Your task to perform on an android device: Check the weather Image 0: 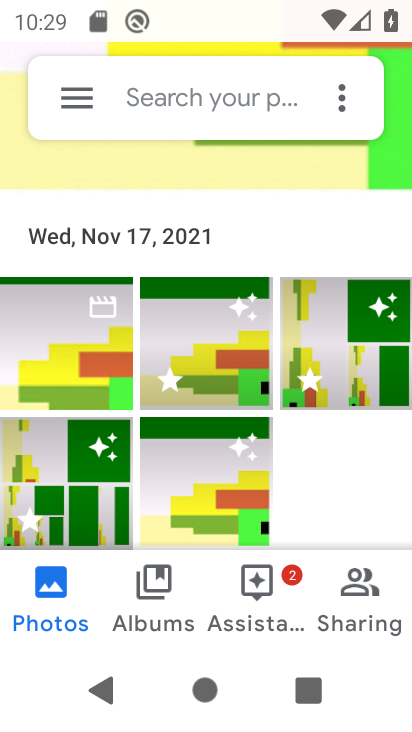
Step 0: press home button
Your task to perform on an android device: Check the weather Image 1: 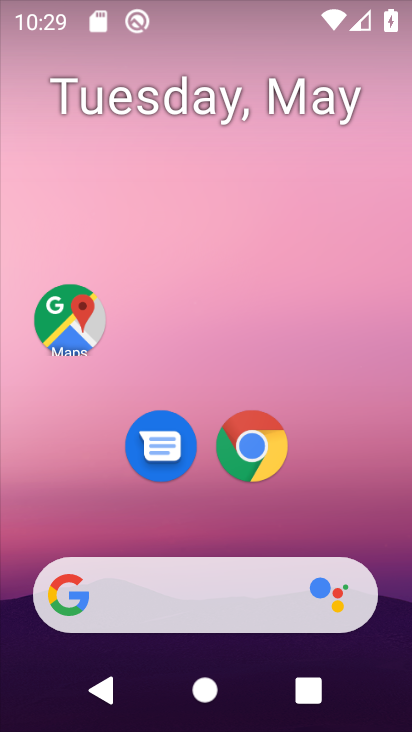
Step 1: drag from (207, 542) to (204, 239)
Your task to perform on an android device: Check the weather Image 2: 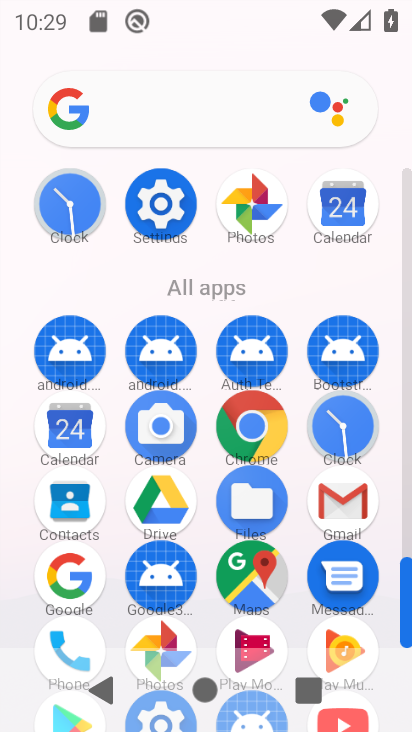
Step 2: click (73, 581)
Your task to perform on an android device: Check the weather Image 3: 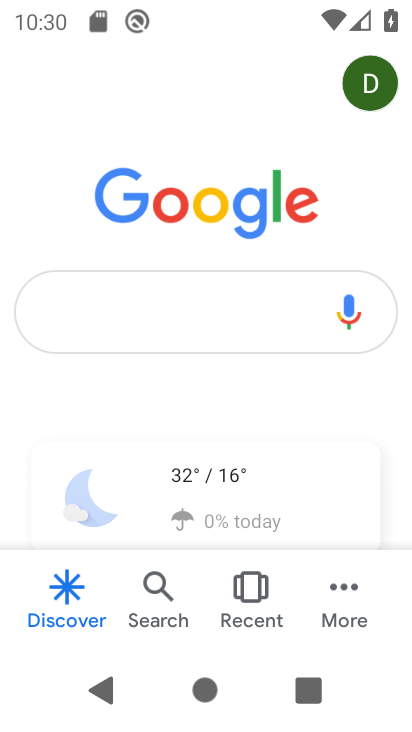
Step 3: click (133, 488)
Your task to perform on an android device: Check the weather Image 4: 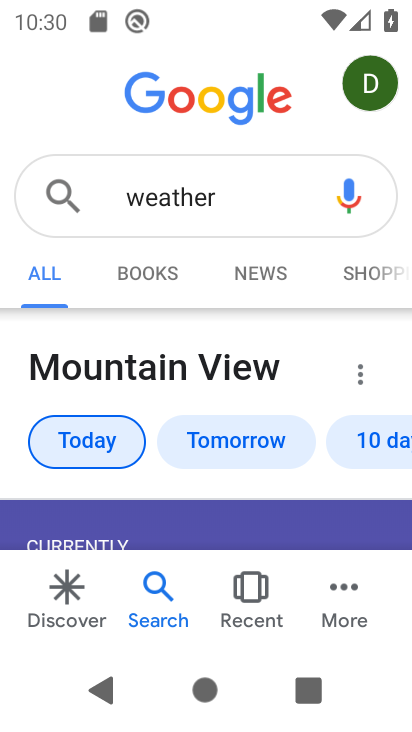
Step 4: task complete